Your task to perform on an android device: Go to Google maps Image 0: 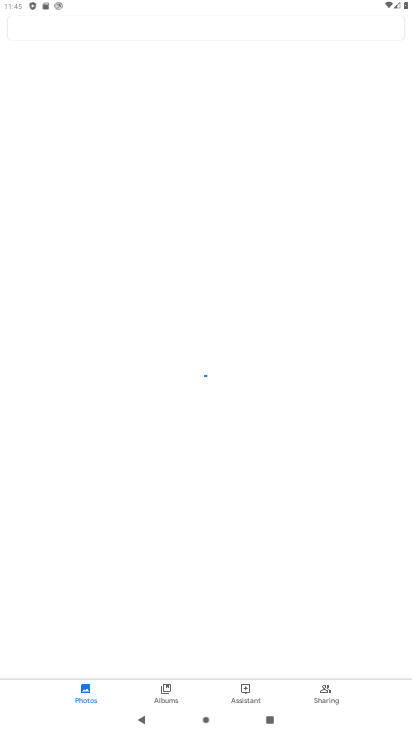
Step 0: press home button
Your task to perform on an android device: Go to Google maps Image 1: 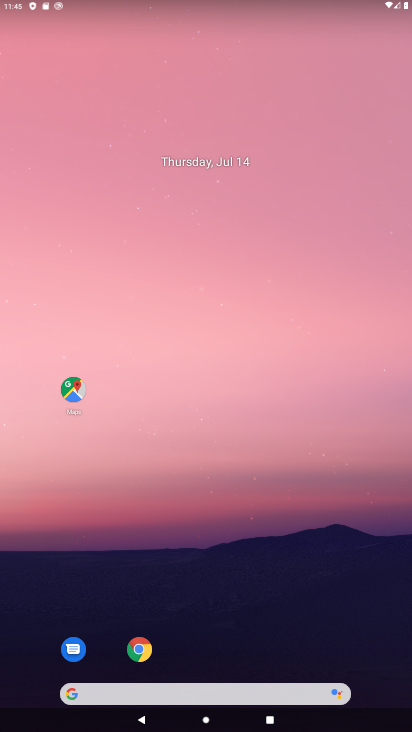
Step 1: drag from (198, 657) to (207, 275)
Your task to perform on an android device: Go to Google maps Image 2: 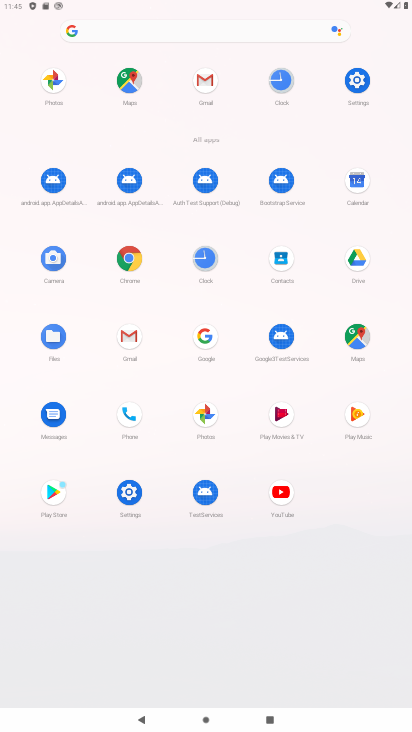
Step 2: click (125, 76)
Your task to perform on an android device: Go to Google maps Image 3: 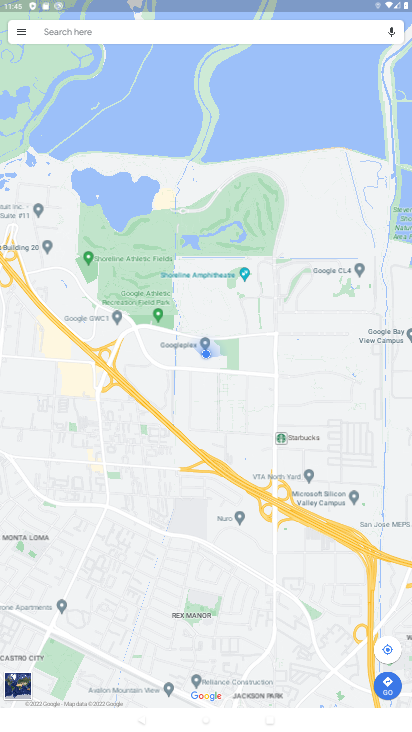
Step 3: task complete